Your task to perform on an android device: Search for usb-a to usb-b on amazon, select the first entry, add it to the cart, then select checkout. Image 0: 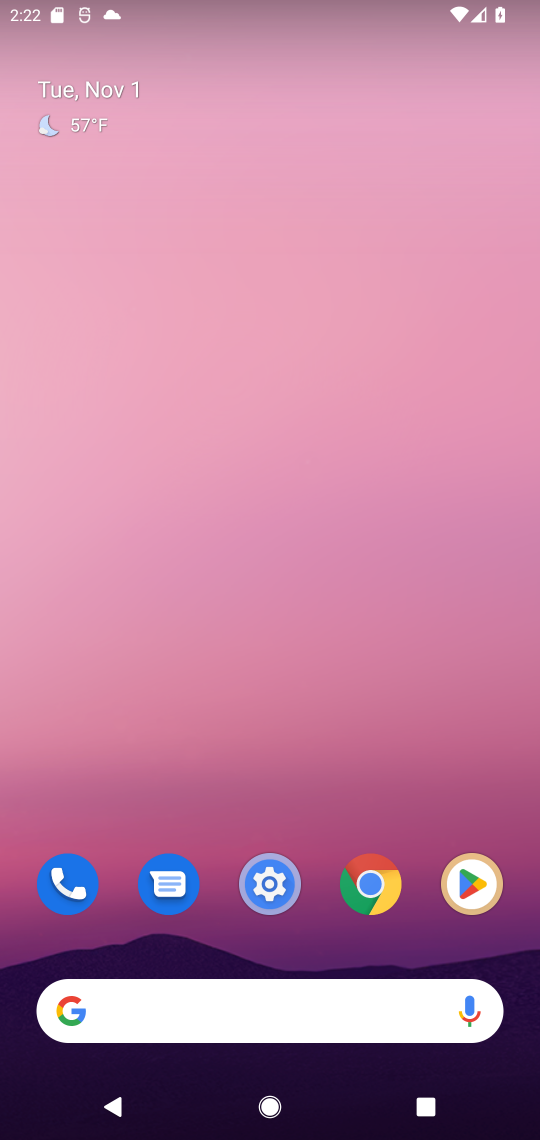
Step 0: press home button
Your task to perform on an android device: Search for usb-a to usb-b on amazon, select the first entry, add it to the cart, then select checkout. Image 1: 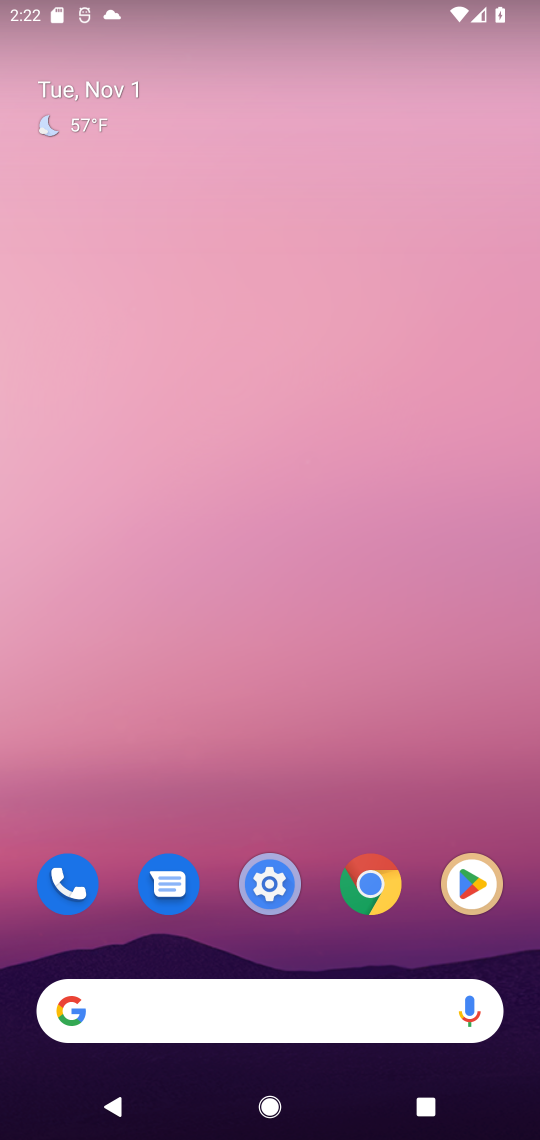
Step 1: click (118, 1017)
Your task to perform on an android device: Search for usb-a to usb-b on amazon, select the first entry, add it to the cart, then select checkout. Image 2: 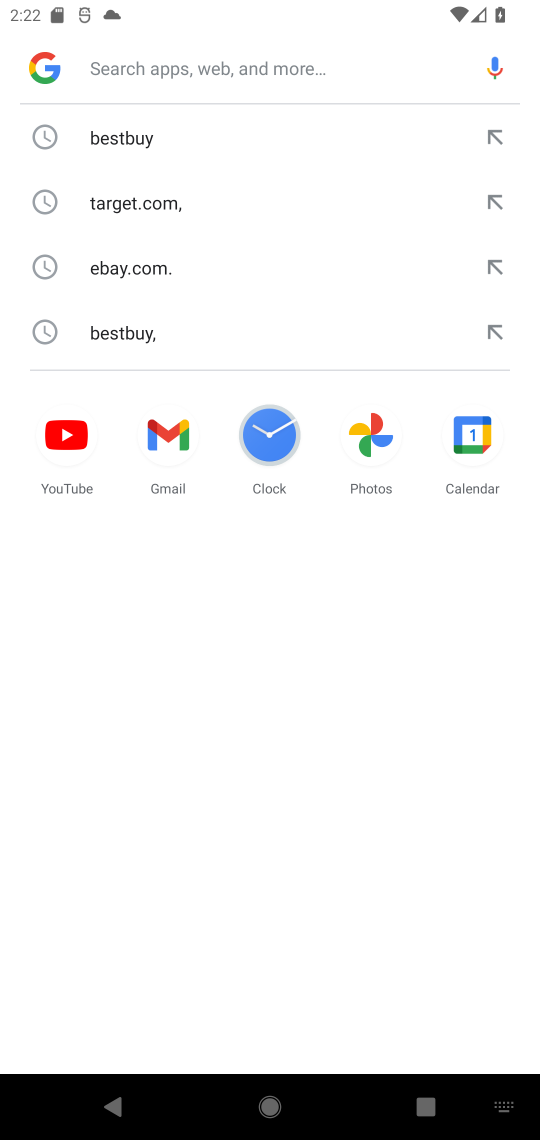
Step 2: type "amazon"
Your task to perform on an android device: Search for usb-a to usb-b on amazon, select the first entry, add it to the cart, then select checkout. Image 3: 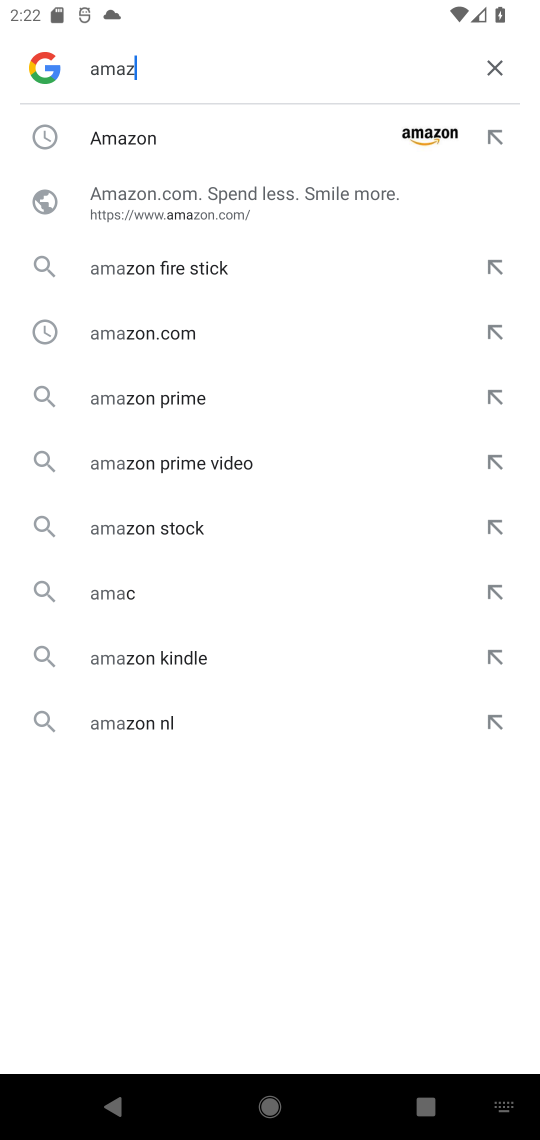
Step 3: press enter
Your task to perform on an android device: Search for usb-a to usb-b on amazon, select the first entry, add it to the cart, then select checkout. Image 4: 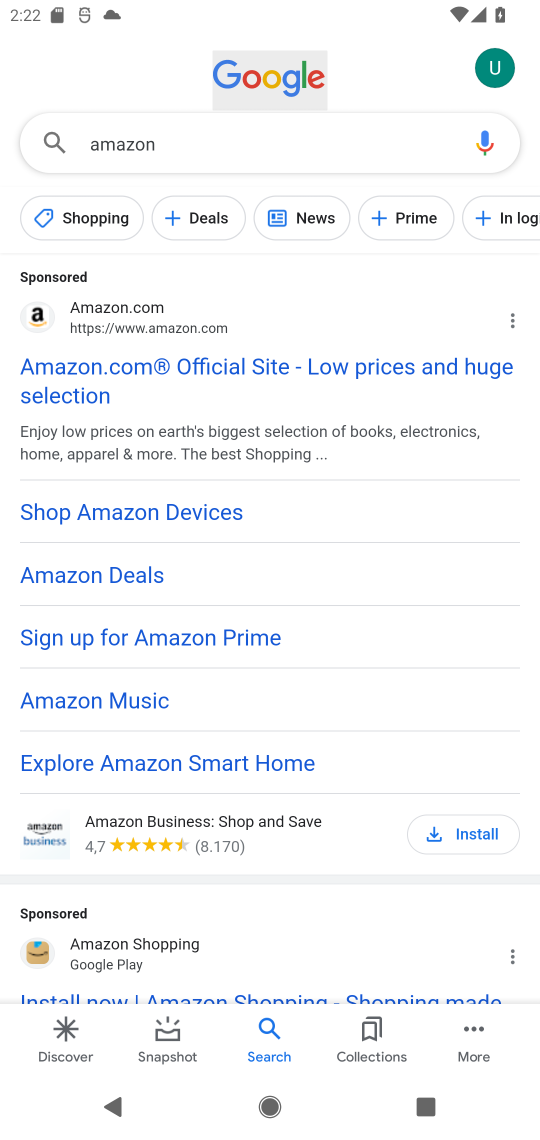
Step 4: click (101, 374)
Your task to perform on an android device: Search for usb-a to usb-b on amazon, select the first entry, add it to the cart, then select checkout. Image 5: 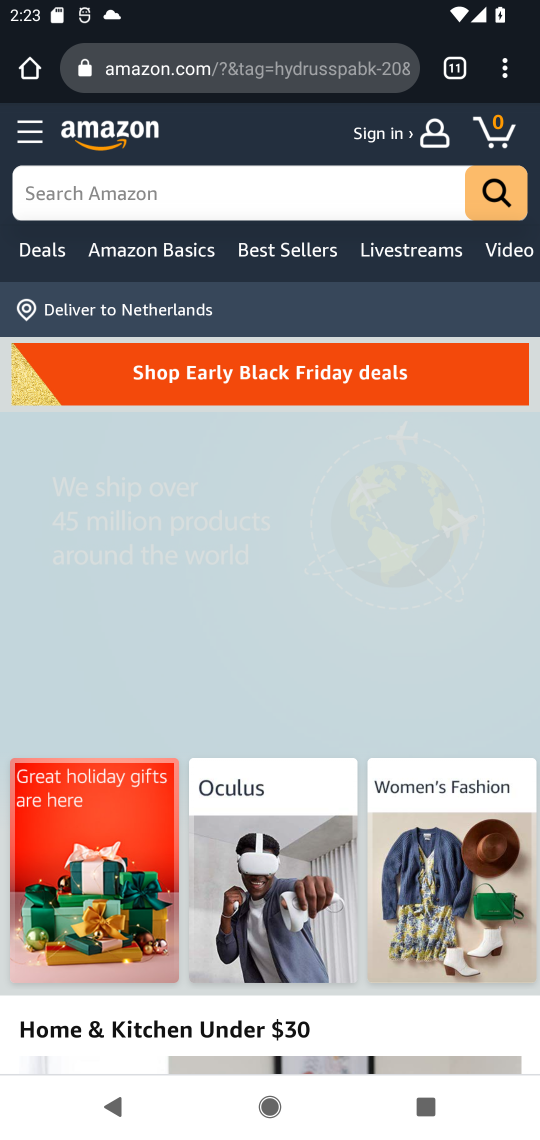
Step 5: click (62, 186)
Your task to perform on an android device: Search for usb-a to usb-b on amazon, select the first entry, add it to the cart, then select checkout. Image 6: 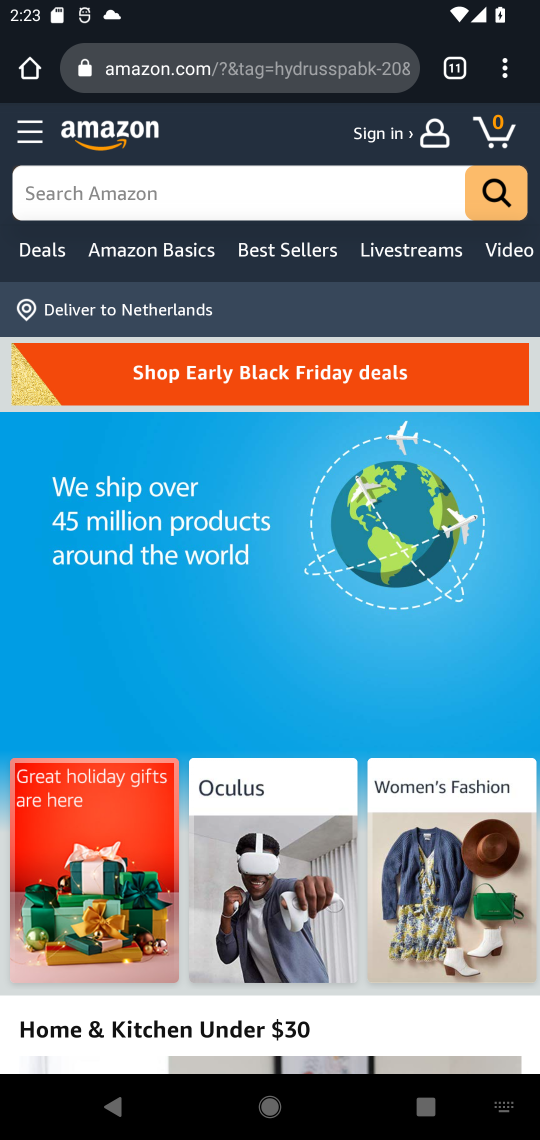
Step 6: type "usb-a to usb-b"
Your task to perform on an android device: Search for usb-a to usb-b on amazon, select the first entry, add it to the cart, then select checkout. Image 7: 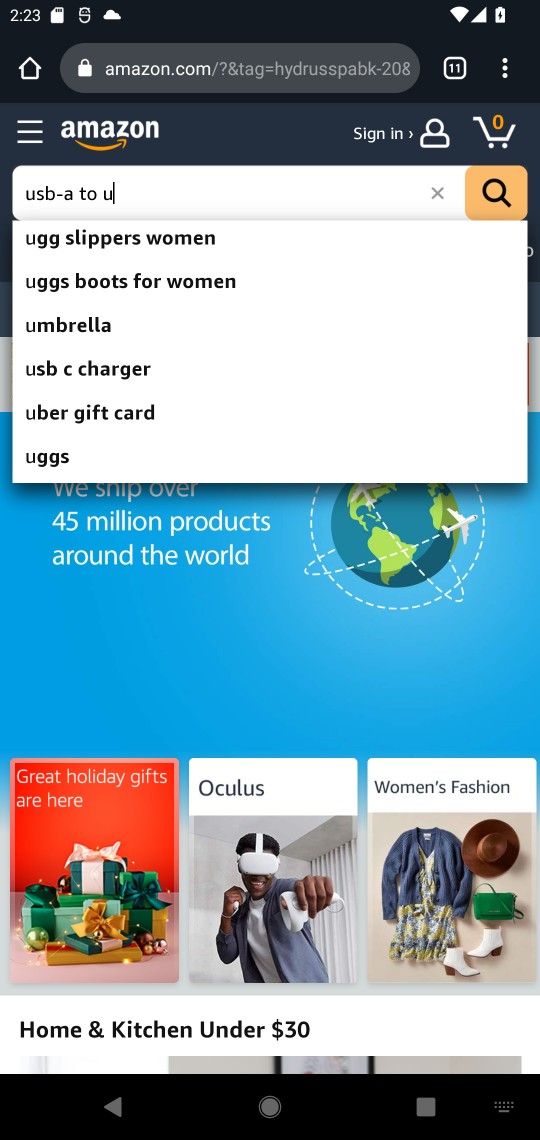
Step 7: press enter
Your task to perform on an android device: Search for usb-a to usb-b on amazon, select the first entry, add it to the cart, then select checkout. Image 8: 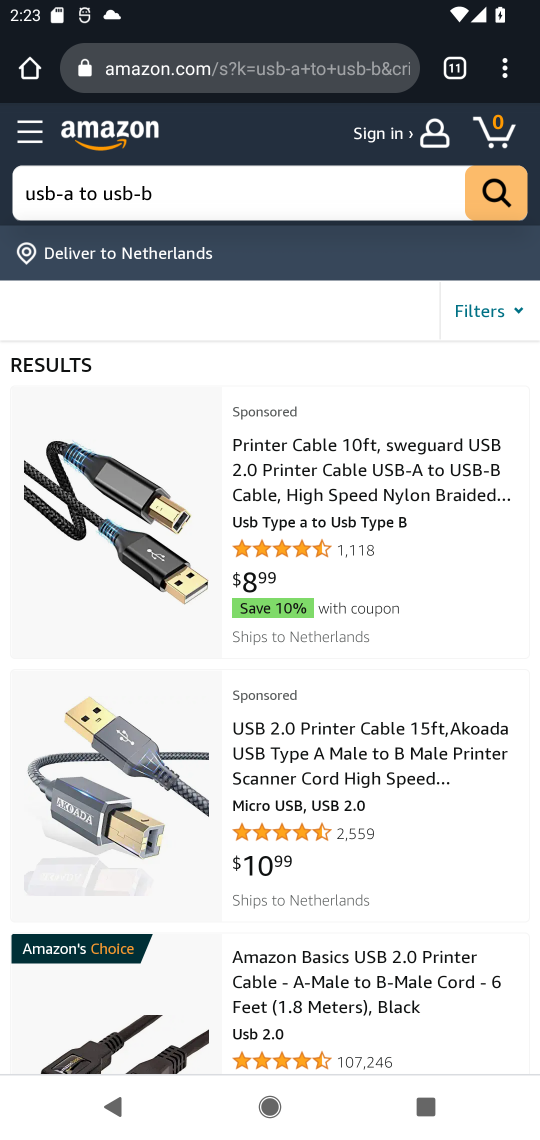
Step 8: click (414, 504)
Your task to perform on an android device: Search for usb-a to usb-b on amazon, select the first entry, add it to the cart, then select checkout. Image 9: 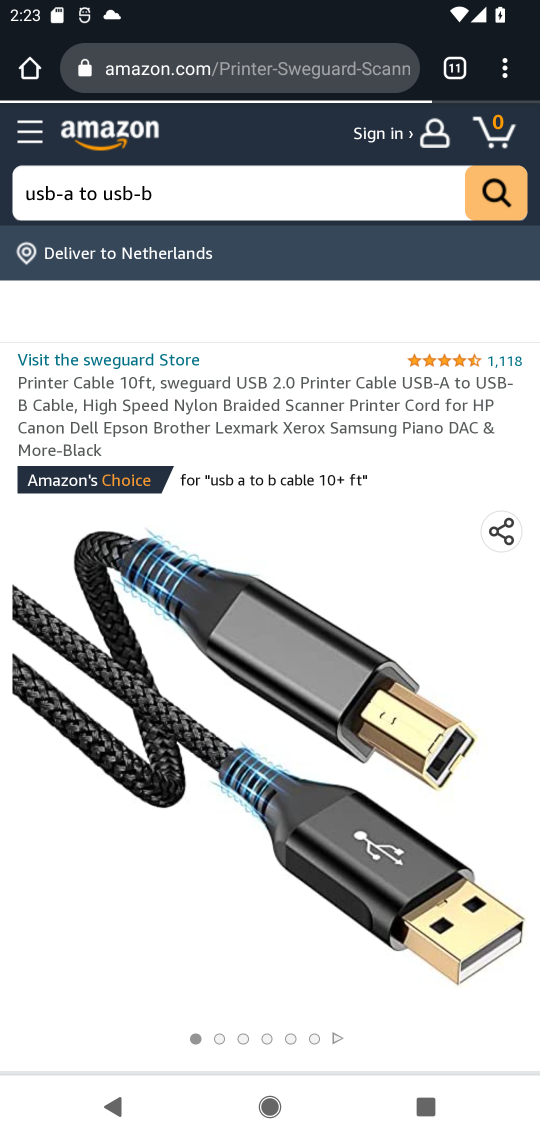
Step 9: drag from (341, 880) to (363, 490)
Your task to perform on an android device: Search for usb-a to usb-b on amazon, select the first entry, add it to the cart, then select checkout. Image 10: 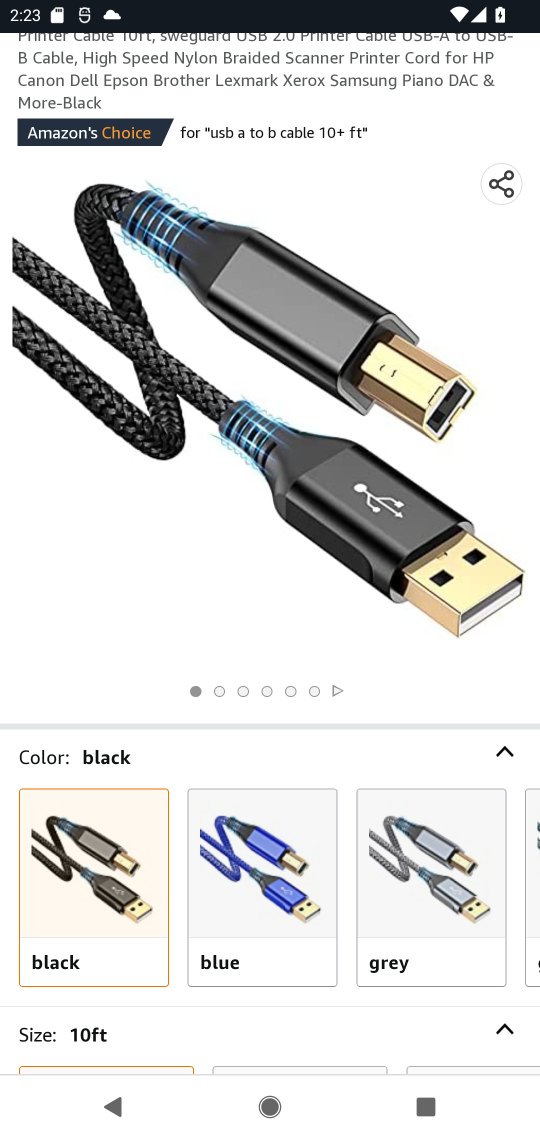
Step 10: drag from (296, 838) to (339, 396)
Your task to perform on an android device: Search for usb-a to usb-b on amazon, select the first entry, add it to the cart, then select checkout. Image 11: 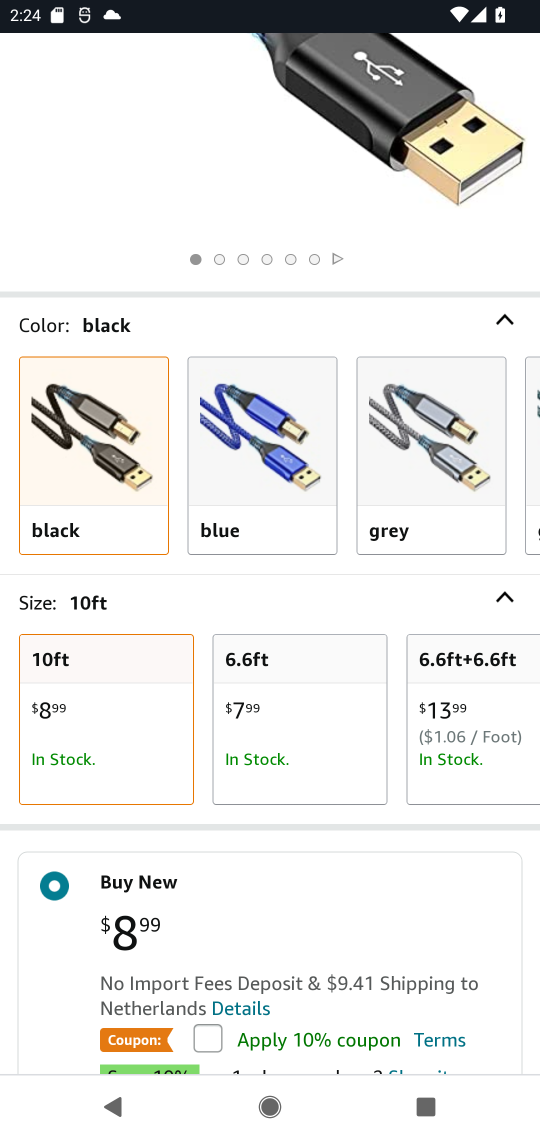
Step 11: drag from (315, 816) to (323, 418)
Your task to perform on an android device: Search for usb-a to usb-b on amazon, select the first entry, add it to the cart, then select checkout. Image 12: 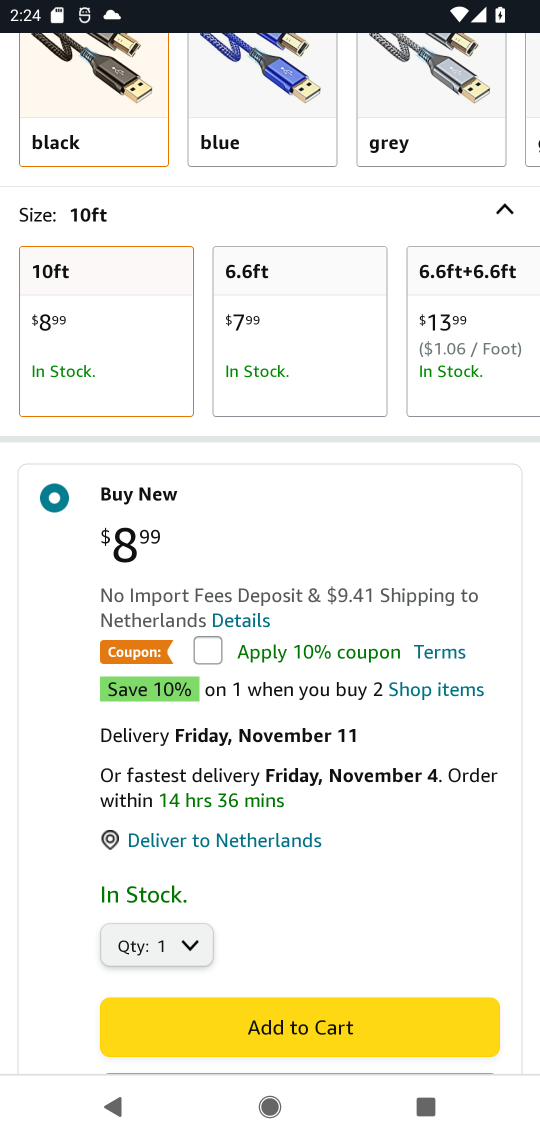
Step 12: click (298, 1031)
Your task to perform on an android device: Search for usb-a to usb-b on amazon, select the first entry, add it to the cart, then select checkout. Image 13: 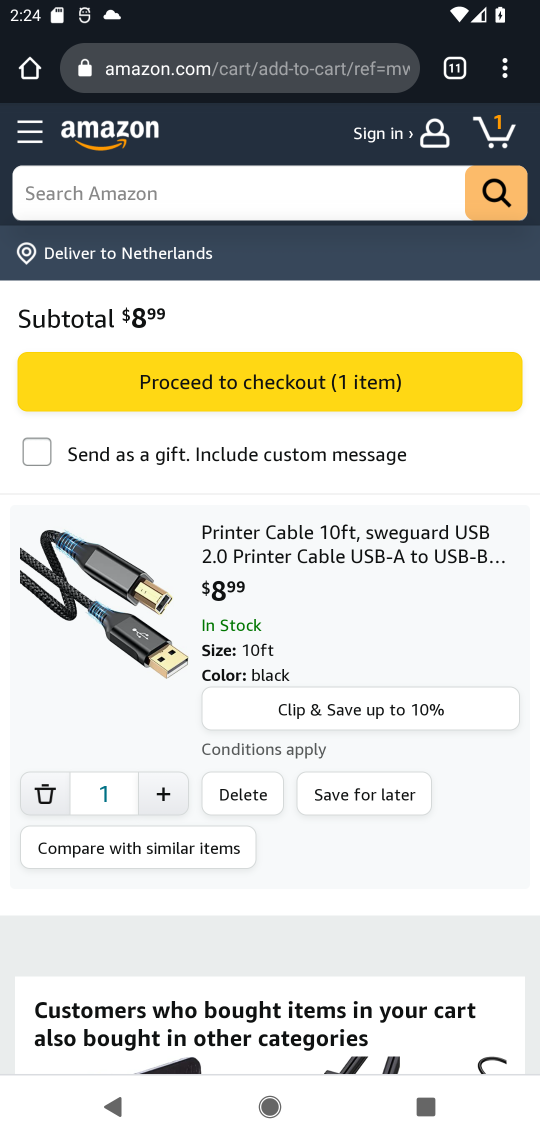
Step 13: drag from (343, 838) to (385, 489)
Your task to perform on an android device: Search for usb-a to usb-b on amazon, select the first entry, add it to the cart, then select checkout. Image 14: 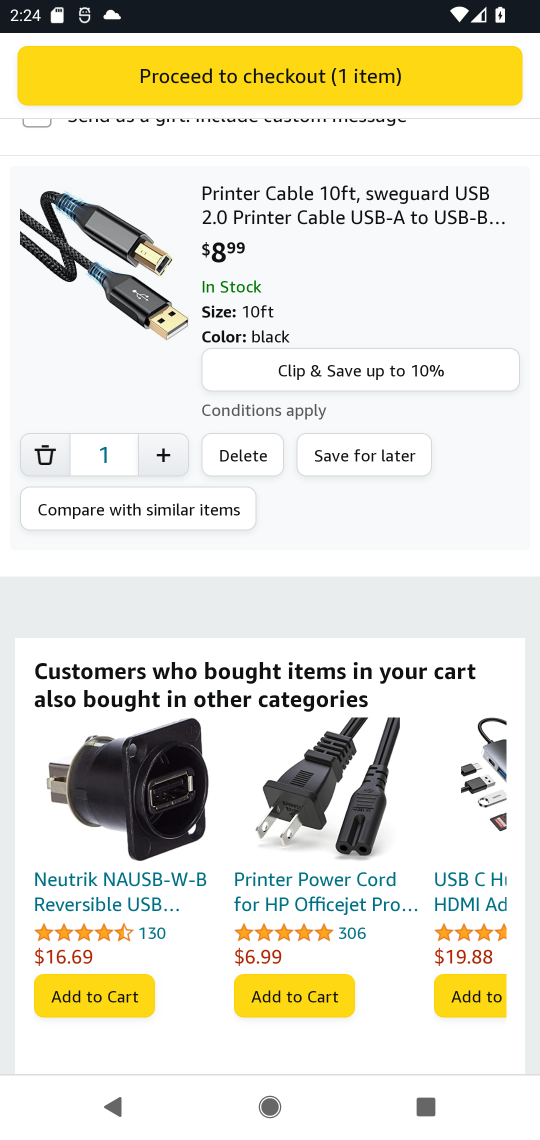
Step 14: click (312, 70)
Your task to perform on an android device: Search for usb-a to usb-b on amazon, select the first entry, add it to the cart, then select checkout. Image 15: 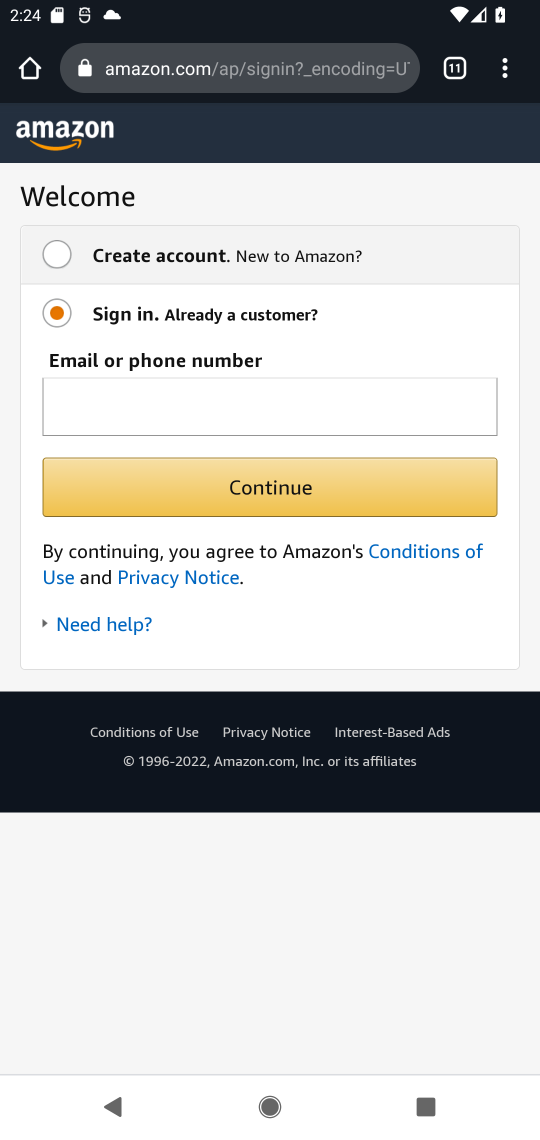
Step 15: task complete